Your task to perform on an android device: allow cookies in the chrome app Image 0: 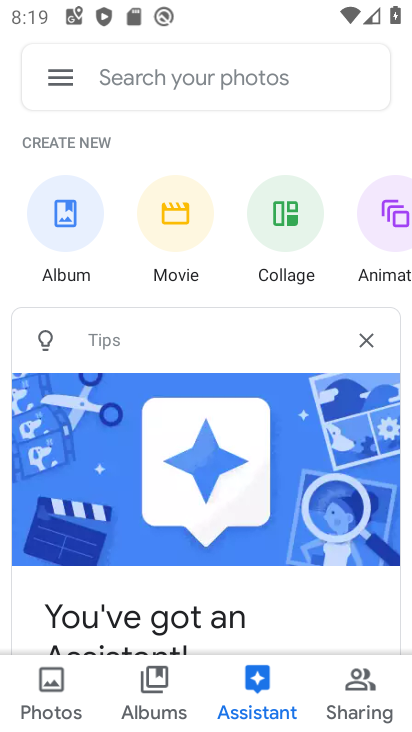
Step 0: press home button
Your task to perform on an android device: allow cookies in the chrome app Image 1: 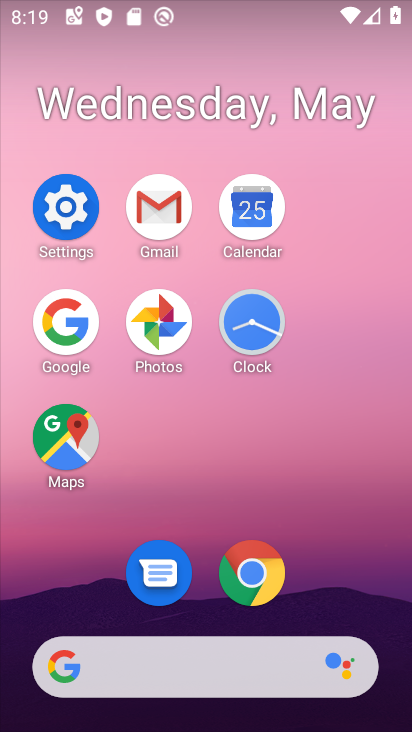
Step 1: click (272, 592)
Your task to perform on an android device: allow cookies in the chrome app Image 2: 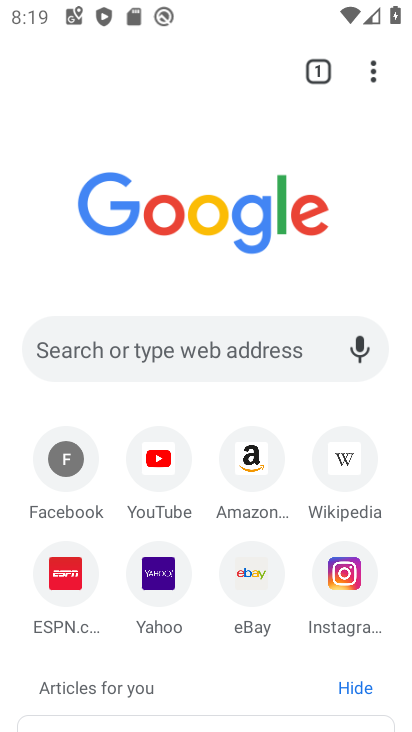
Step 2: click (378, 75)
Your task to perform on an android device: allow cookies in the chrome app Image 3: 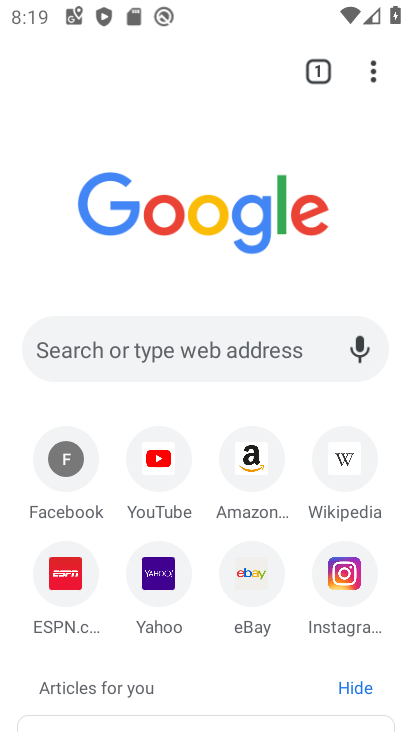
Step 3: click (377, 72)
Your task to perform on an android device: allow cookies in the chrome app Image 4: 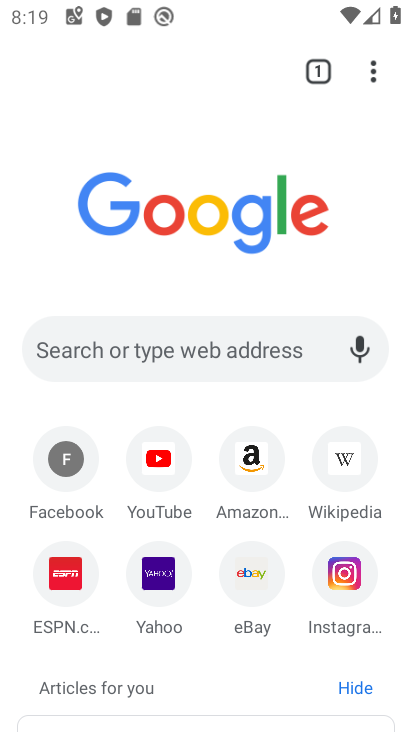
Step 4: click (372, 66)
Your task to perform on an android device: allow cookies in the chrome app Image 5: 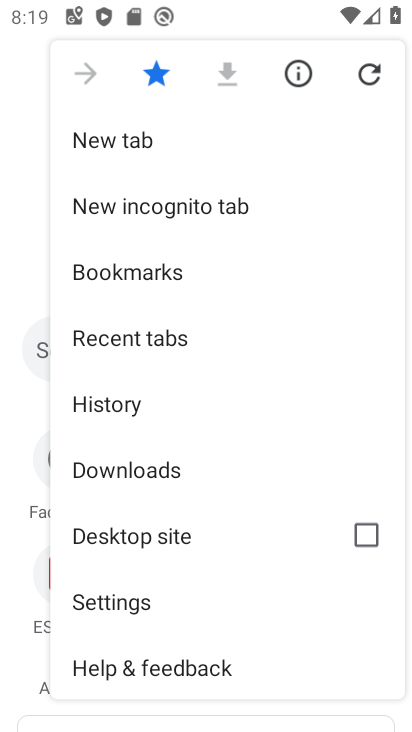
Step 5: drag from (216, 528) to (223, 189)
Your task to perform on an android device: allow cookies in the chrome app Image 6: 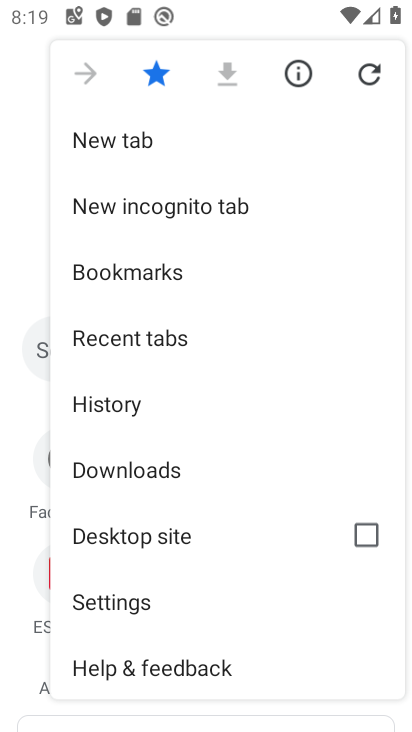
Step 6: click (206, 600)
Your task to perform on an android device: allow cookies in the chrome app Image 7: 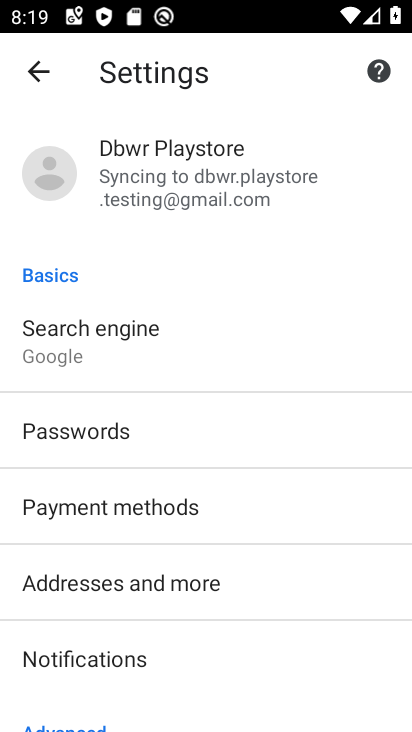
Step 7: drag from (247, 655) to (257, 220)
Your task to perform on an android device: allow cookies in the chrome app Image 8: 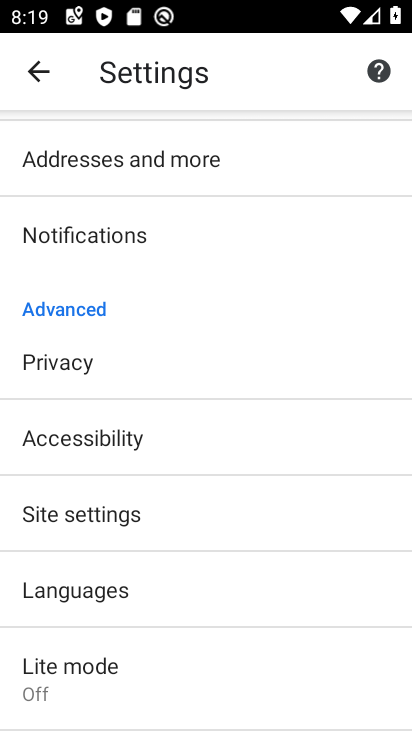
Step 8: click (248, 525)
Your task to perform on an android device: allow cookies in the chrome app Image 9: 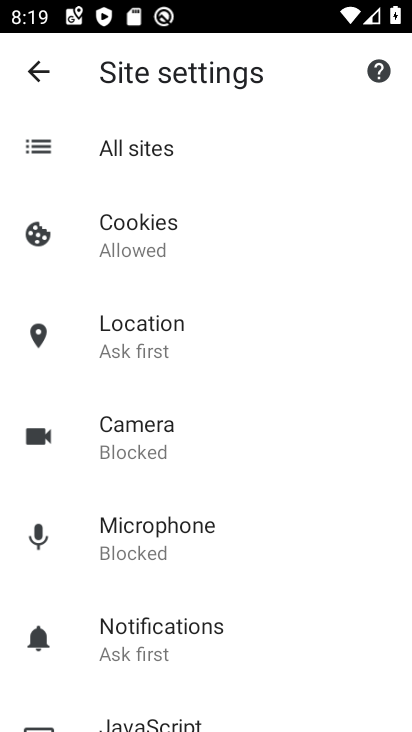
Step 9: click (244, 219)
Your task to perform on an android device: allow cookies in the chrome app Image 10: 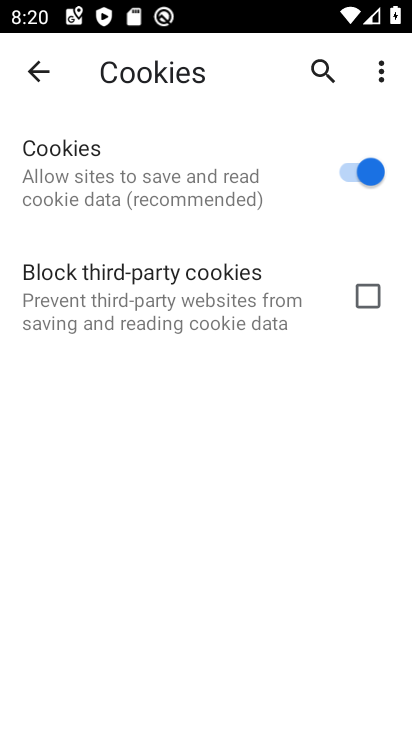
Step 10: task complete